Your task to perform on an android device: Open settings on Google Maps Image 0: 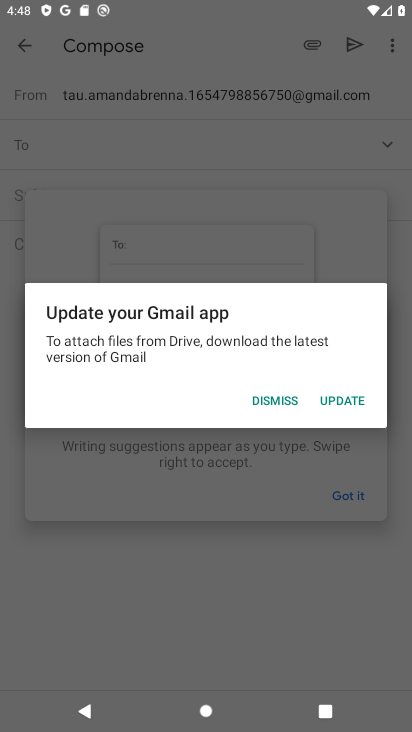
Step 0: press home button
Your task to perform on an android device: Open settings on Google Maps Image 1: 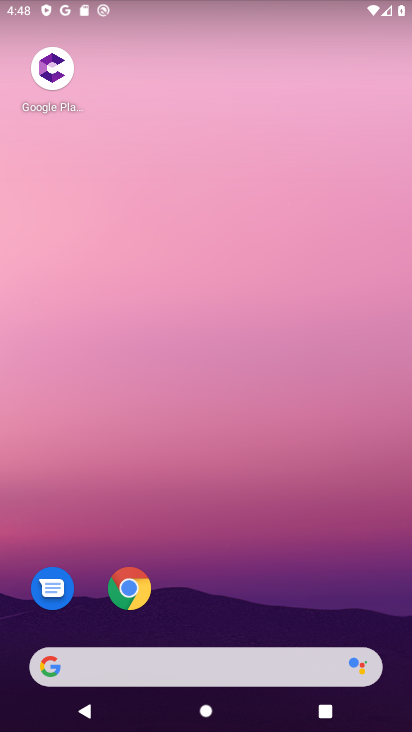
Step 1: drag from (178, 381) to (237, 23)
Your task to perform on an android device: Open settings on Google Maps Image 2: 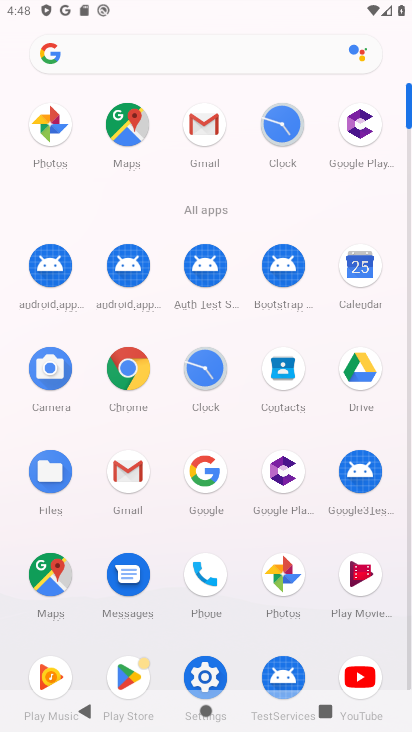
Step 2: click (44, 574)
Your task to perform on an android device: Open settings on Google Maps Image 3: 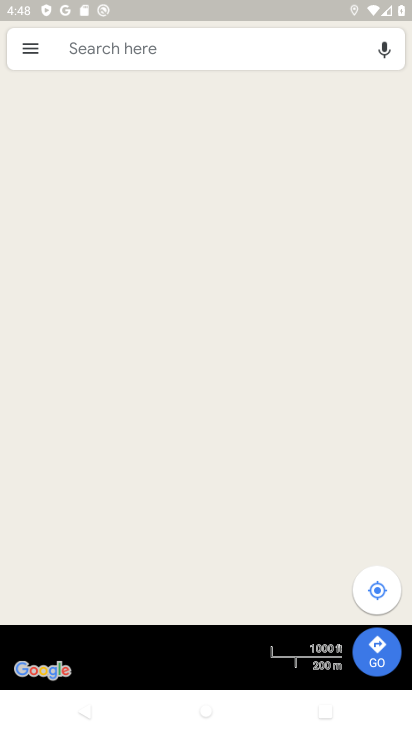
Step 3: click (28, 52)
Your task to perform on an android device: Open settings on Google Maps Image 4: 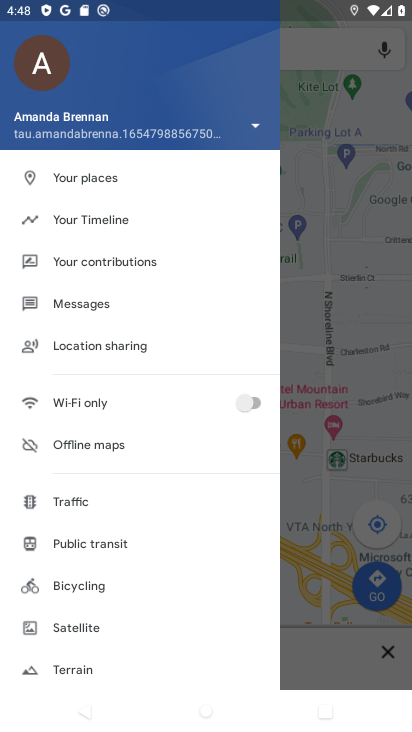
Step 4: task complete